Your task to perform on an android device: Show me the alarms in the clock app Image 0: 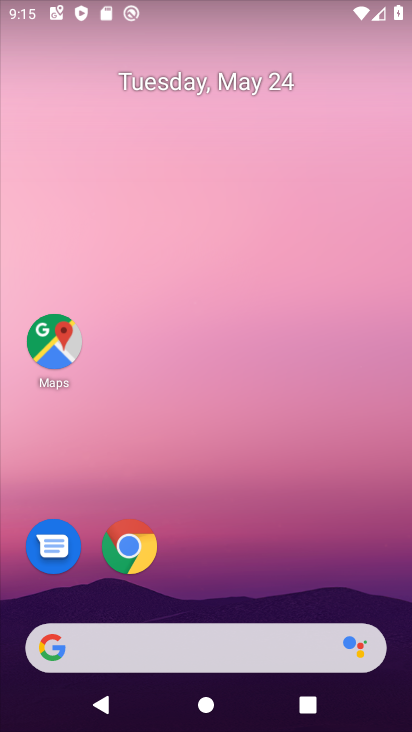
Step 0: drag from (241, 607) to (212, 172)
Your task to perform on an android device: Show me the alarms in the clock app Image 1: 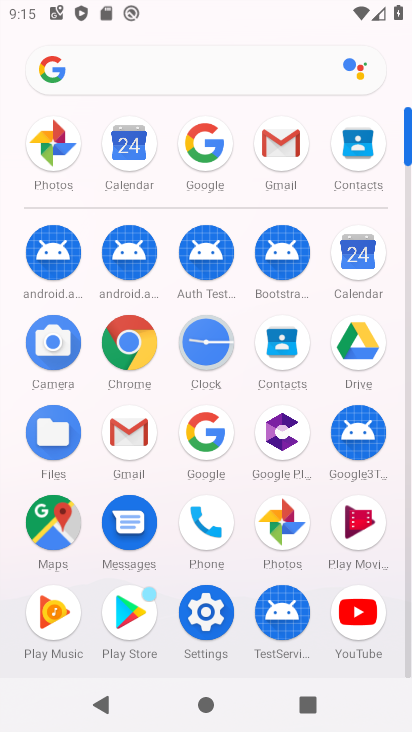
Step 1: click (203, 333)
Your task to perform on an android device: Show me the alarms in the clock app Image 2: 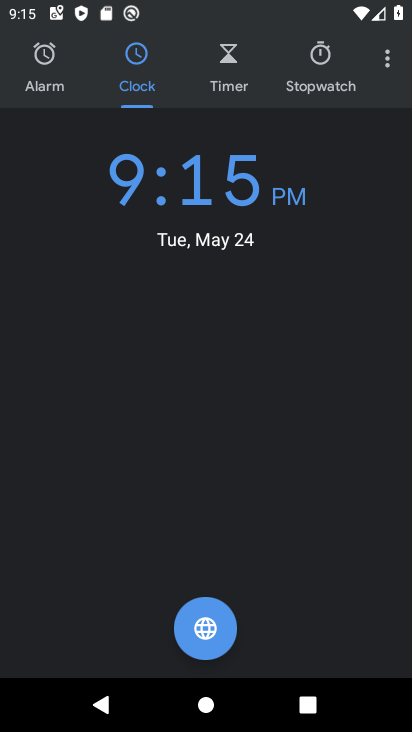
Step 2: click (47, 58)
Your task to perform on an android device: Show me the alarms in the clock app Image 3: 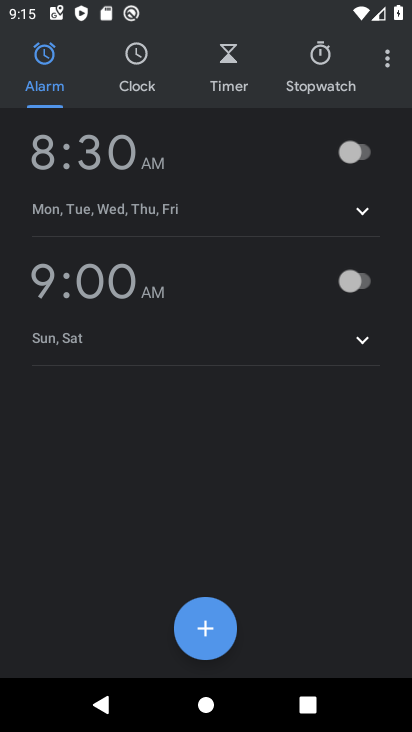
Step 3: task complete